Your task to perform on an android device: remove spam from my inbox in the gmail app Image 0: 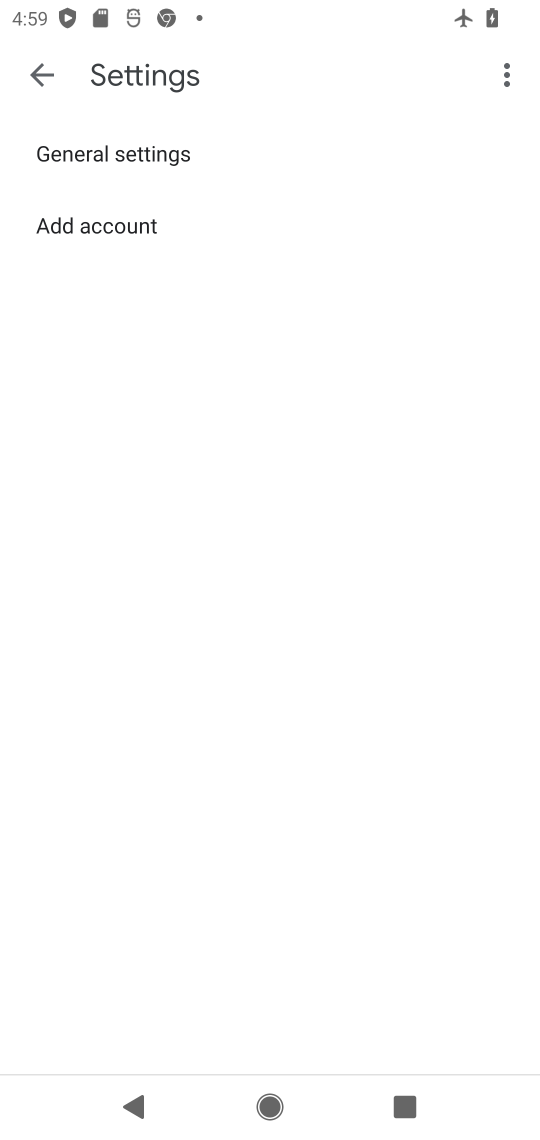
Step 0: press home button
Your task to perform on an android device: remove spam from my inbox in the gmail app Image 1: 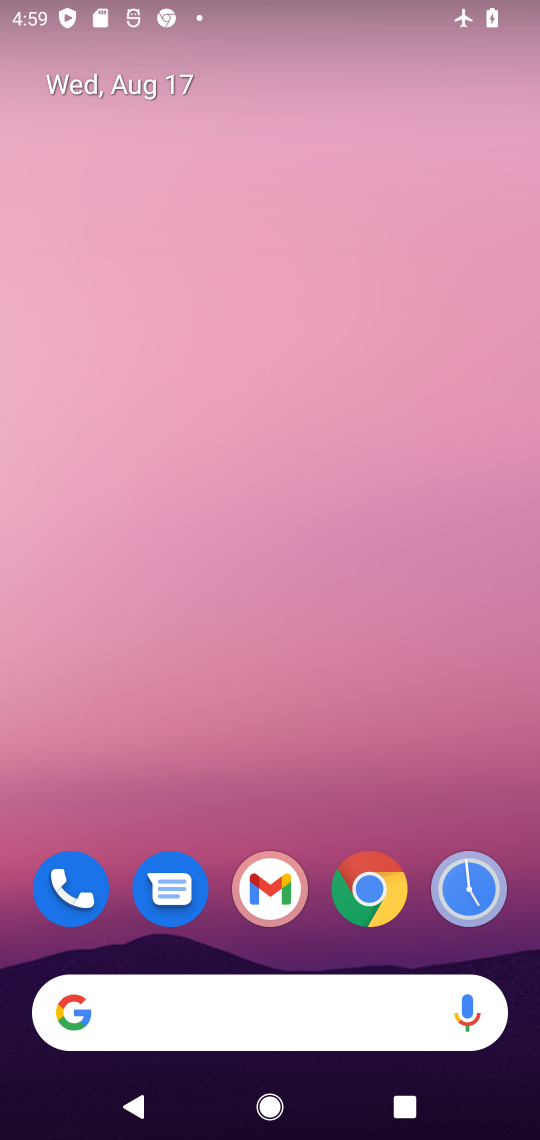
Step 1: click (261, 898)
Your task to perform on an android device: remove spam from my inbox in the gmail app Image 2: 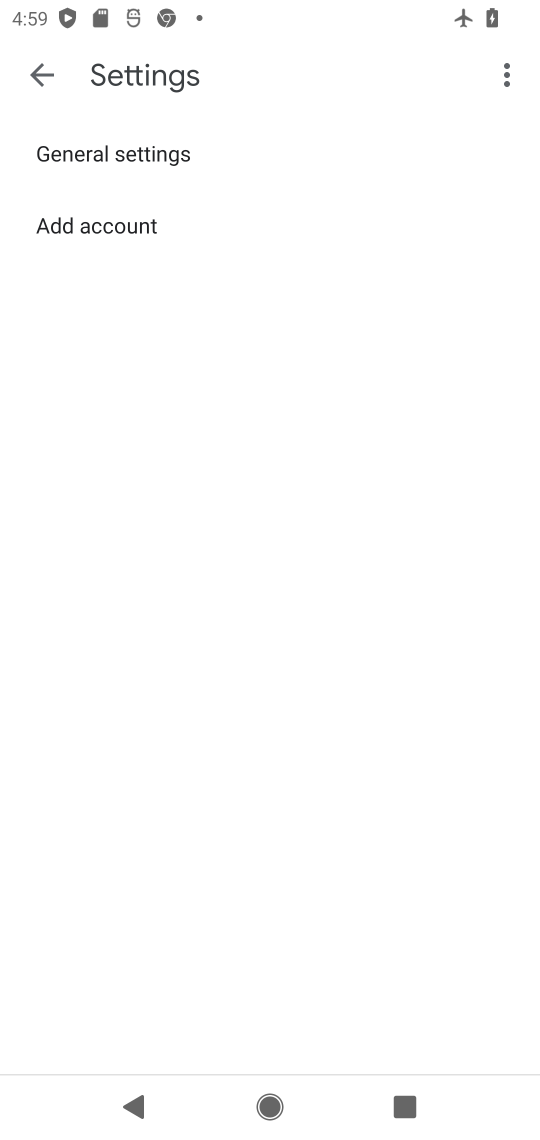
Step 2: click (44, 72)
Your task to perform on an android device: remove spam from my inbox in the gmail app Image 3: 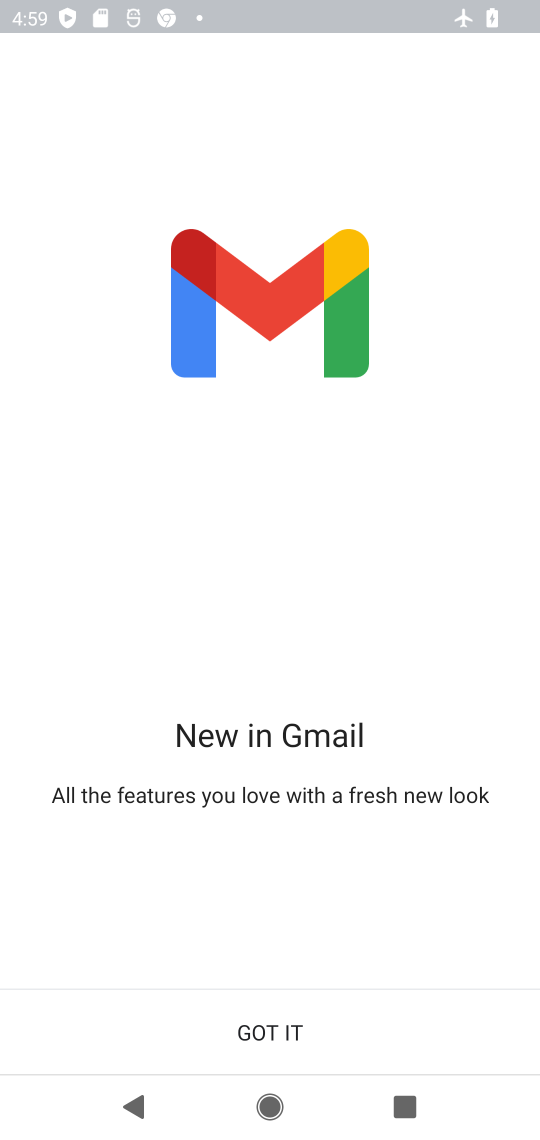
Step 3: click (260, 1027)
Your task to perform on an android device: remove spam from my inbox in the gmail app Image 4: 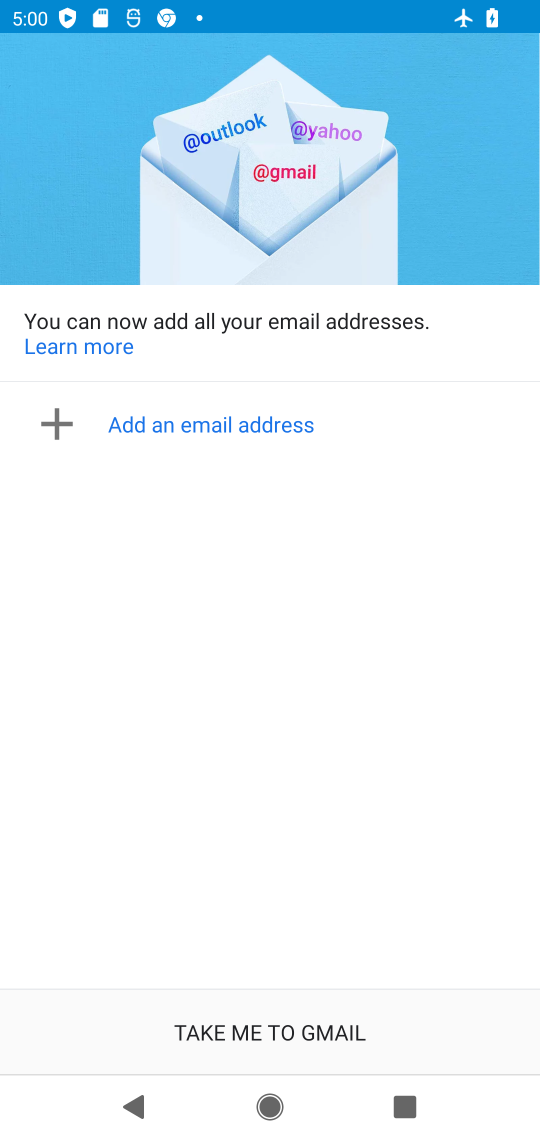
Step 4: task complete